Your task to perform on an android device: Go to Yahoo.com Image 0: 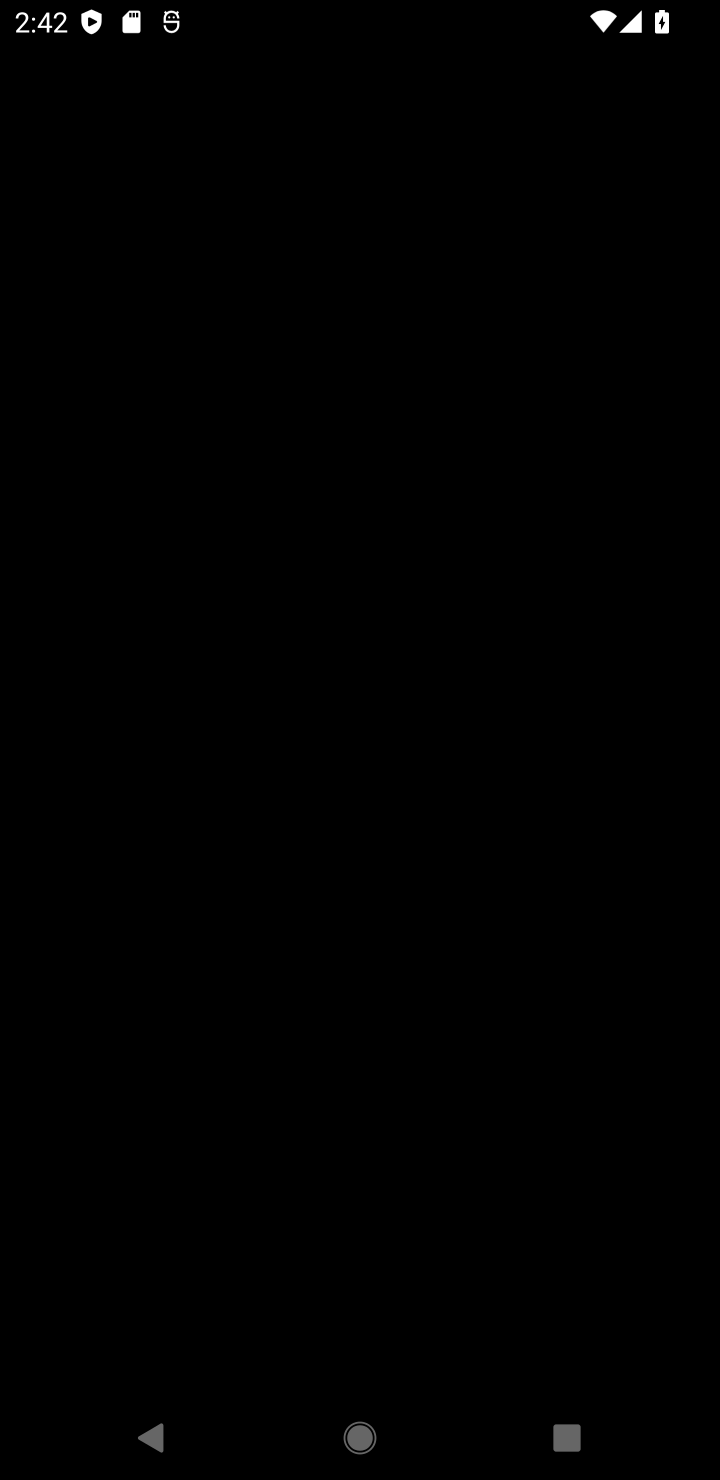
Step 0: click (620, 217)
Your task to perform on an android device: Go to Yahoo.com Image 1: 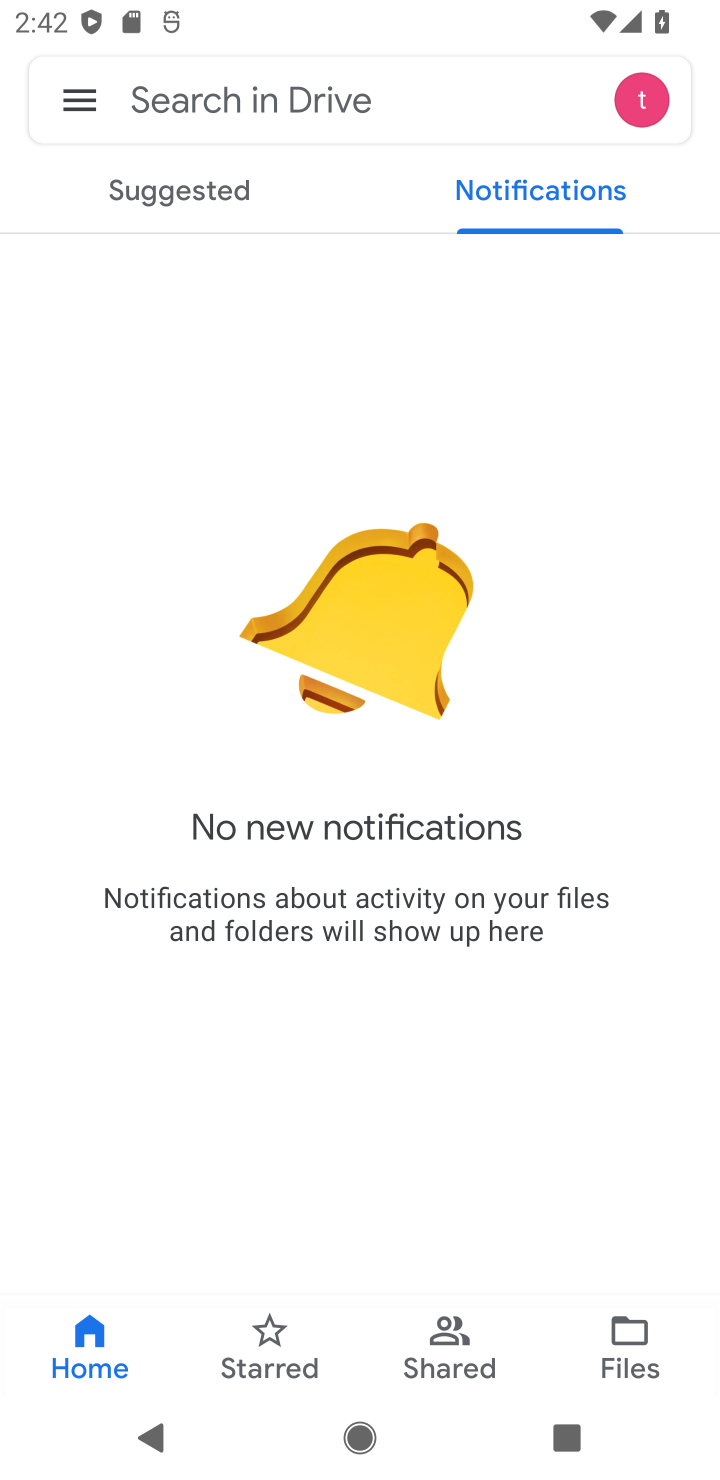
Step 1: press home button
Your task to perform on an android device: Go to Yahoo.com Image 2: 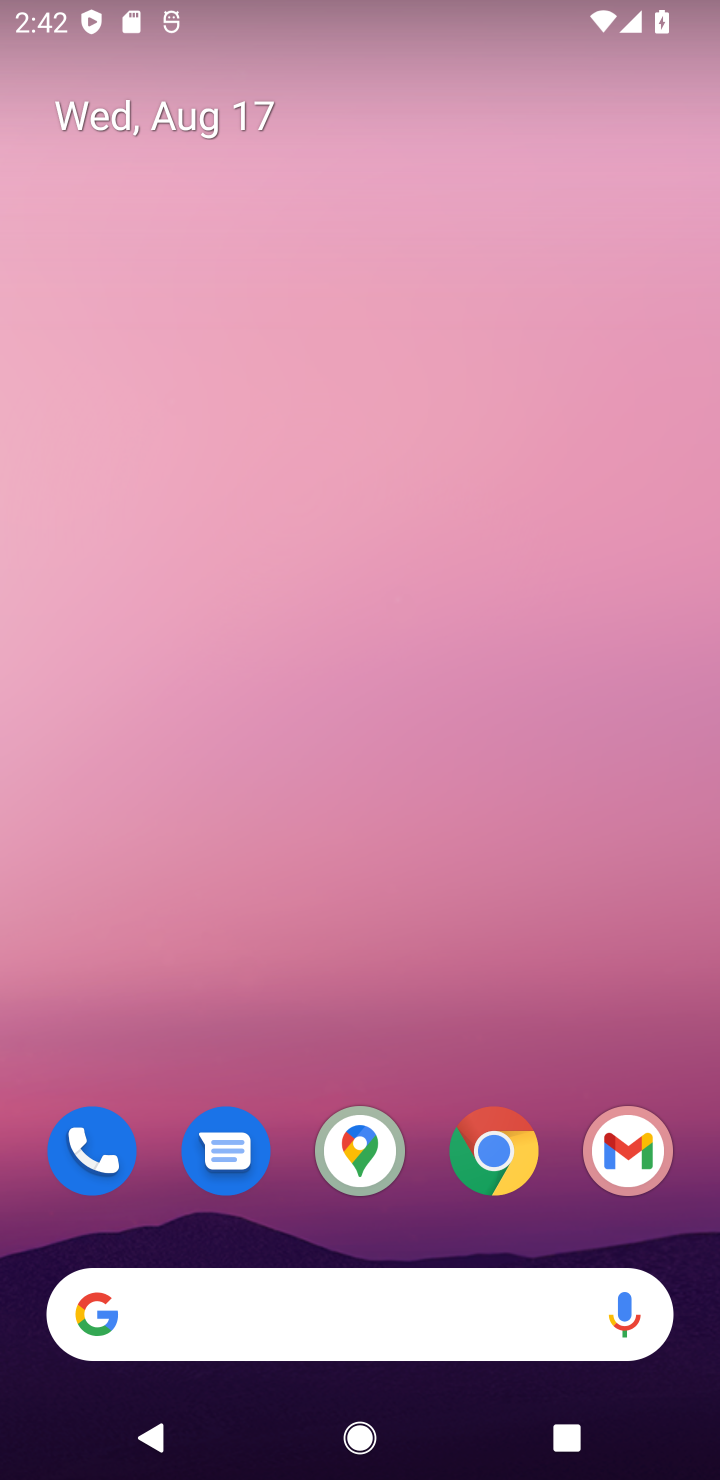
Step 2: drag from (241, 1301) to (359, 255)
Your task to perform on an android device: Go to Yahoo.com Image 3: 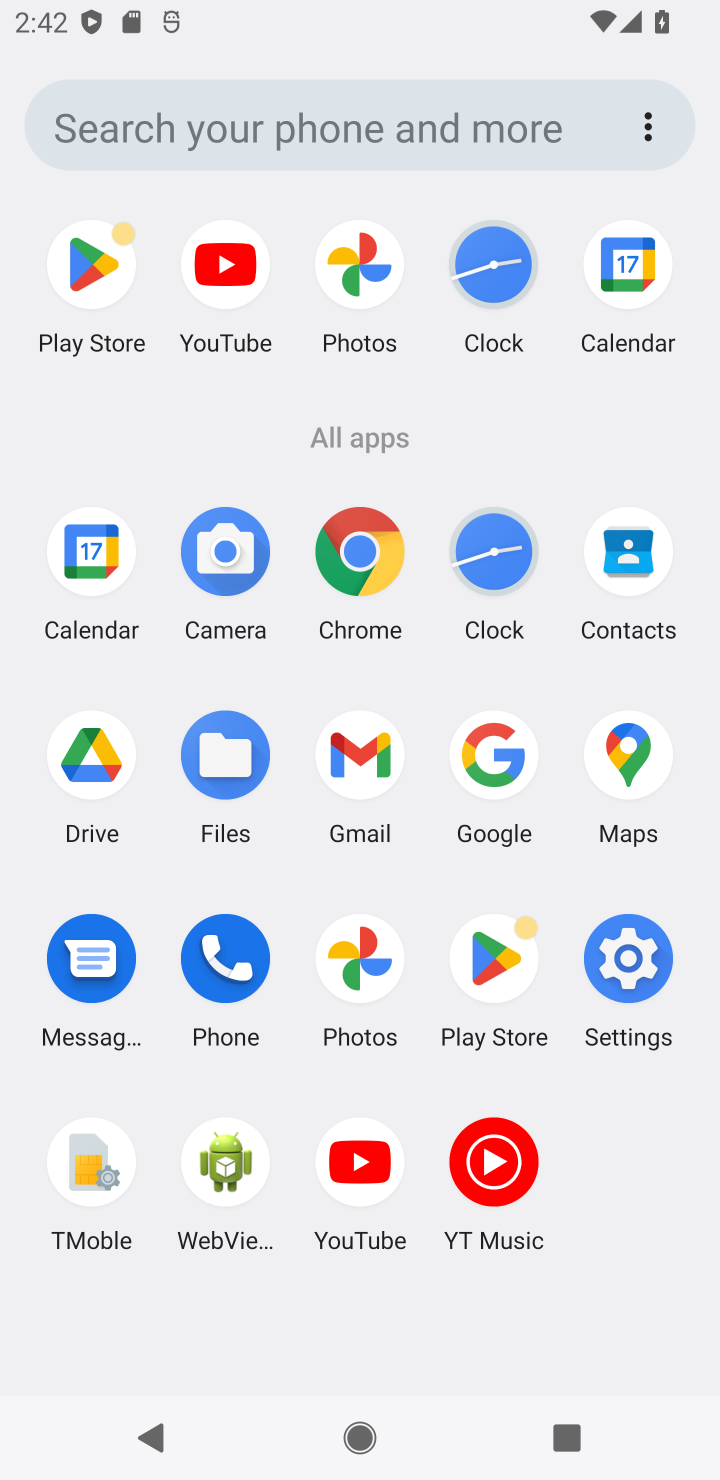
Step 3: click (344, 564)
Your task to perform on an android device: Go to Yahoo.com Image 4: 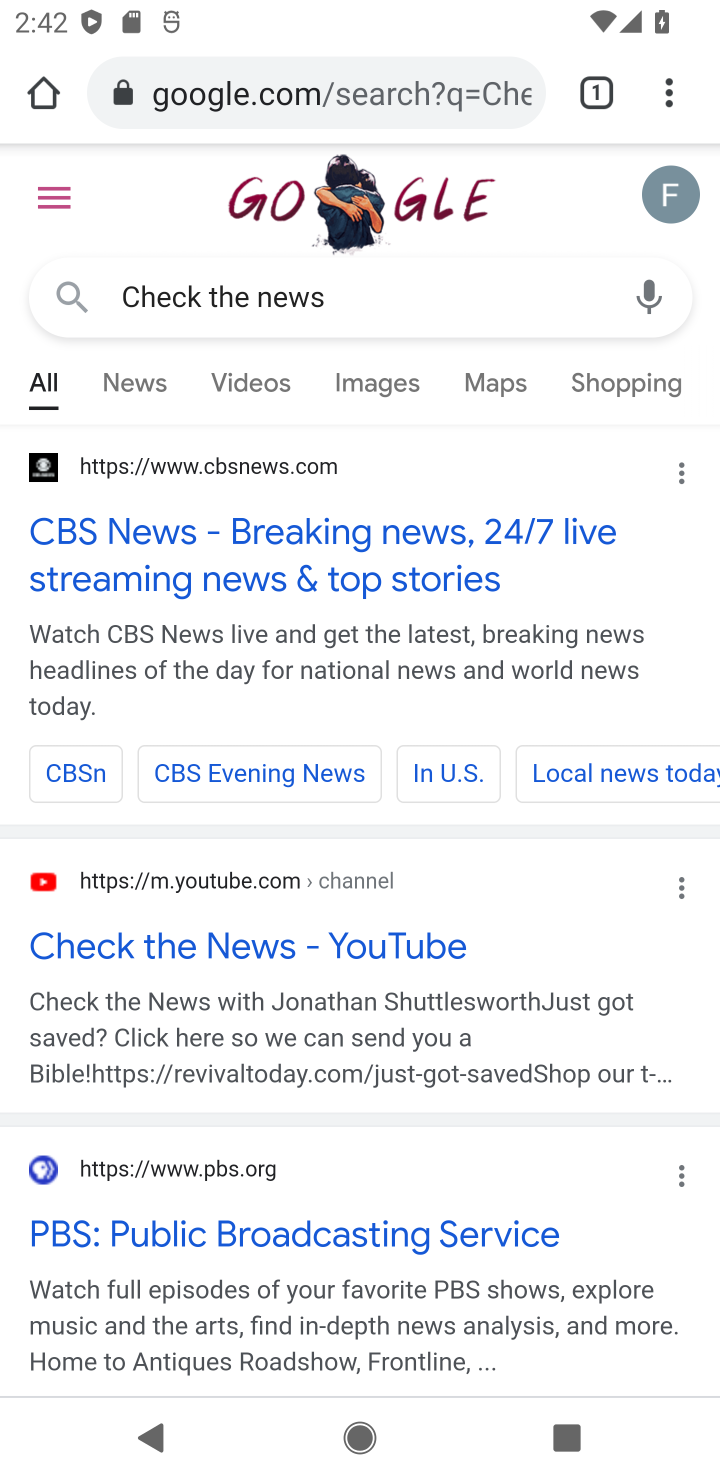
Step 4: click (680, 84)
Your task to perform on an android device: Go to Yahoo.com Image 5: 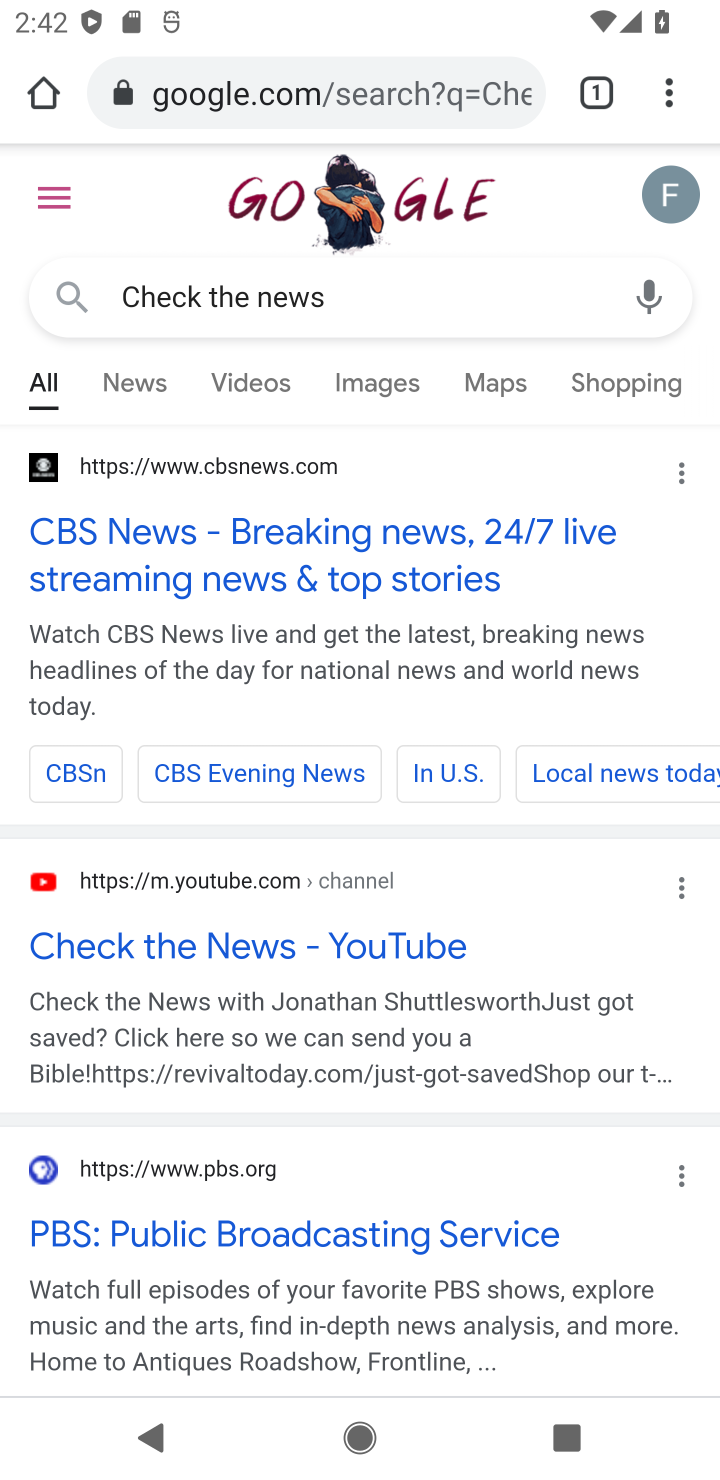
Step 5: click (660, 81)
Your task to perform on an android device: Go to Yahoo.com Image 6: 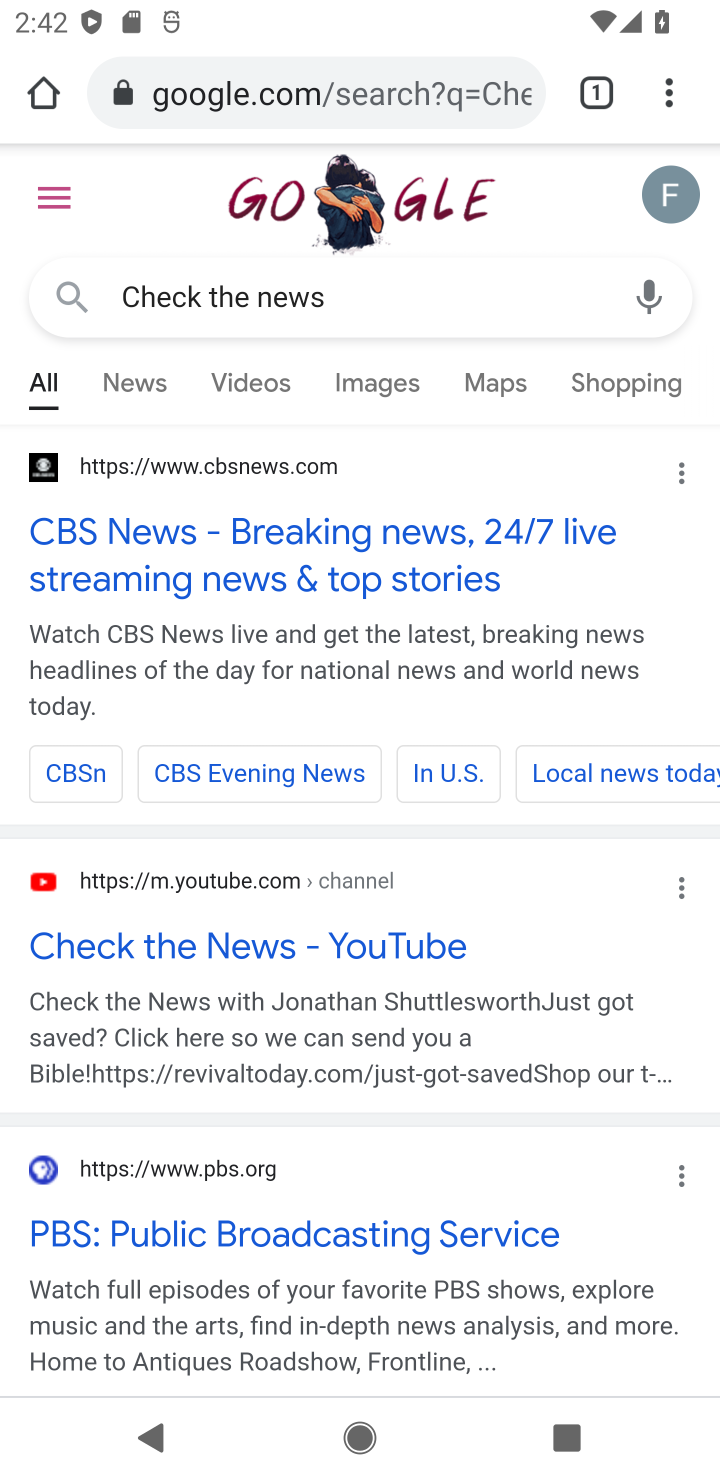
Step 6: click (660, 92)
Your task to perform on an android device: Go to Yahoo.com Image 7: 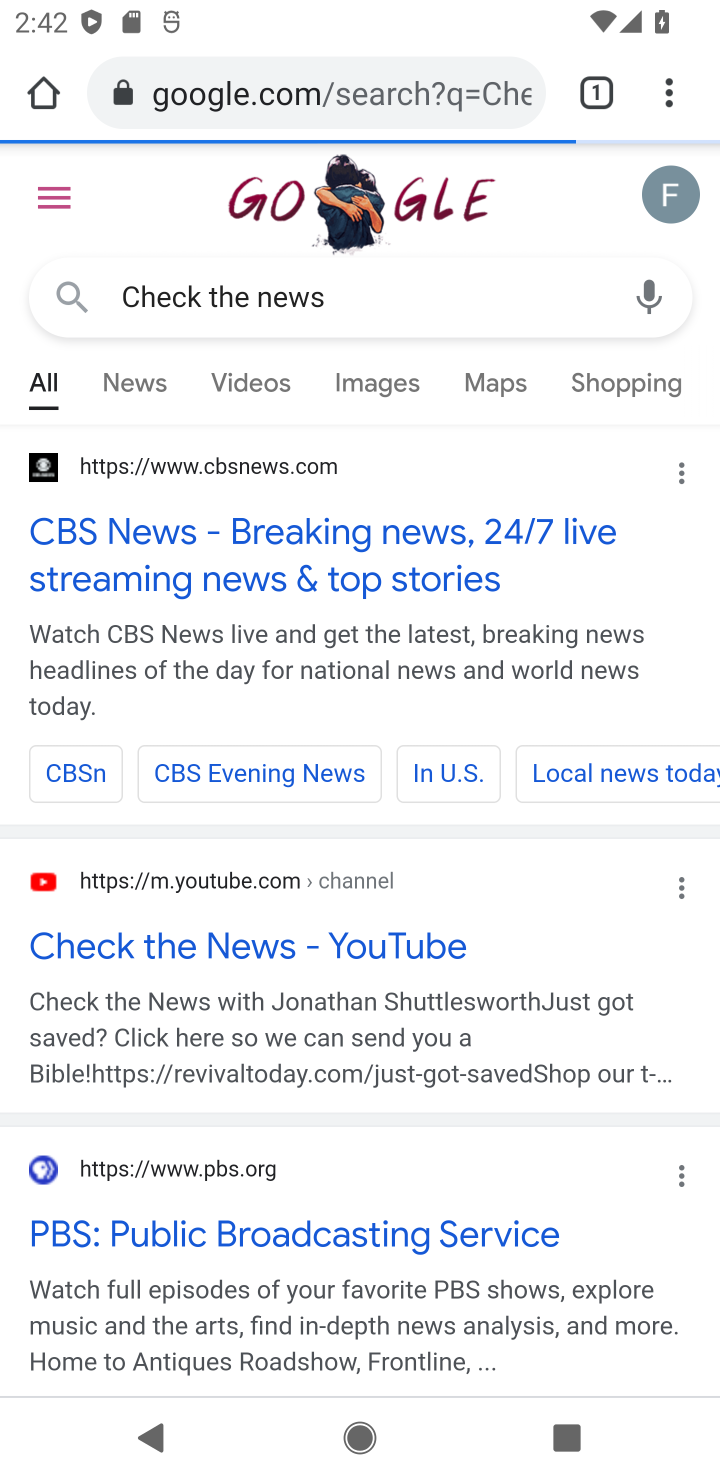
Step 7: click (663, 90)
Your task to perform on an android device: Go to Yahoo.com Image 8: 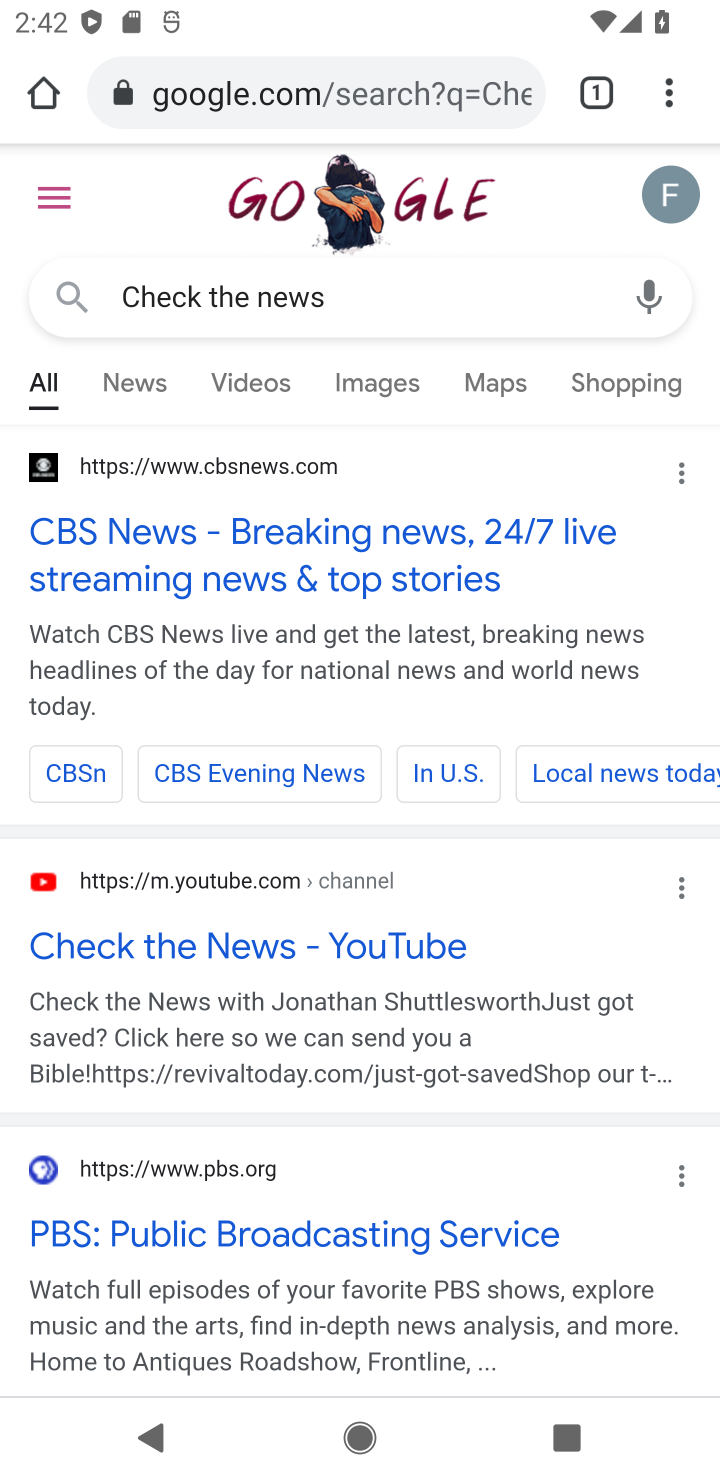
Step 8: click (638, 71)
Your task to perform on an android device: Go to Yahoo.com Image 9: 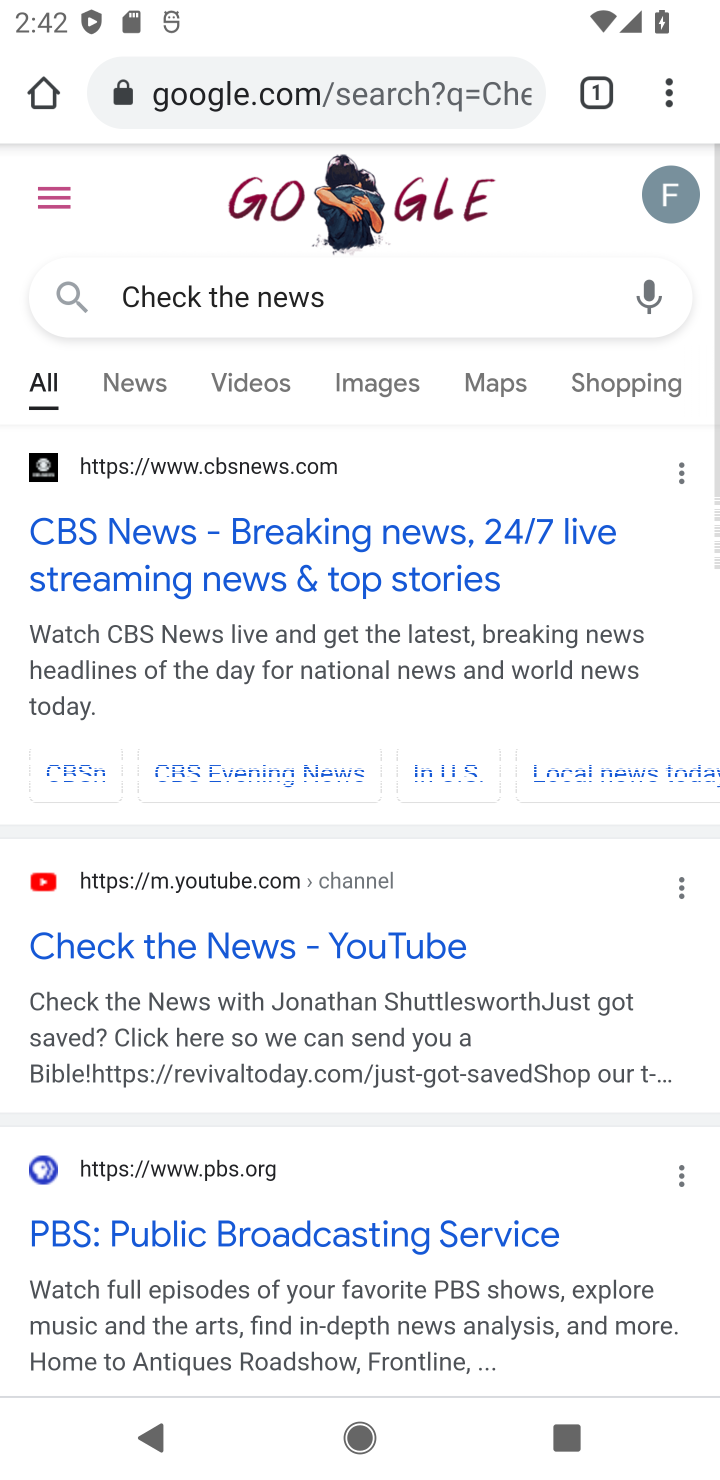
Step 9: click (592, 82)
Your task to perform on an android device: Go to Yahoo.com Image 10: 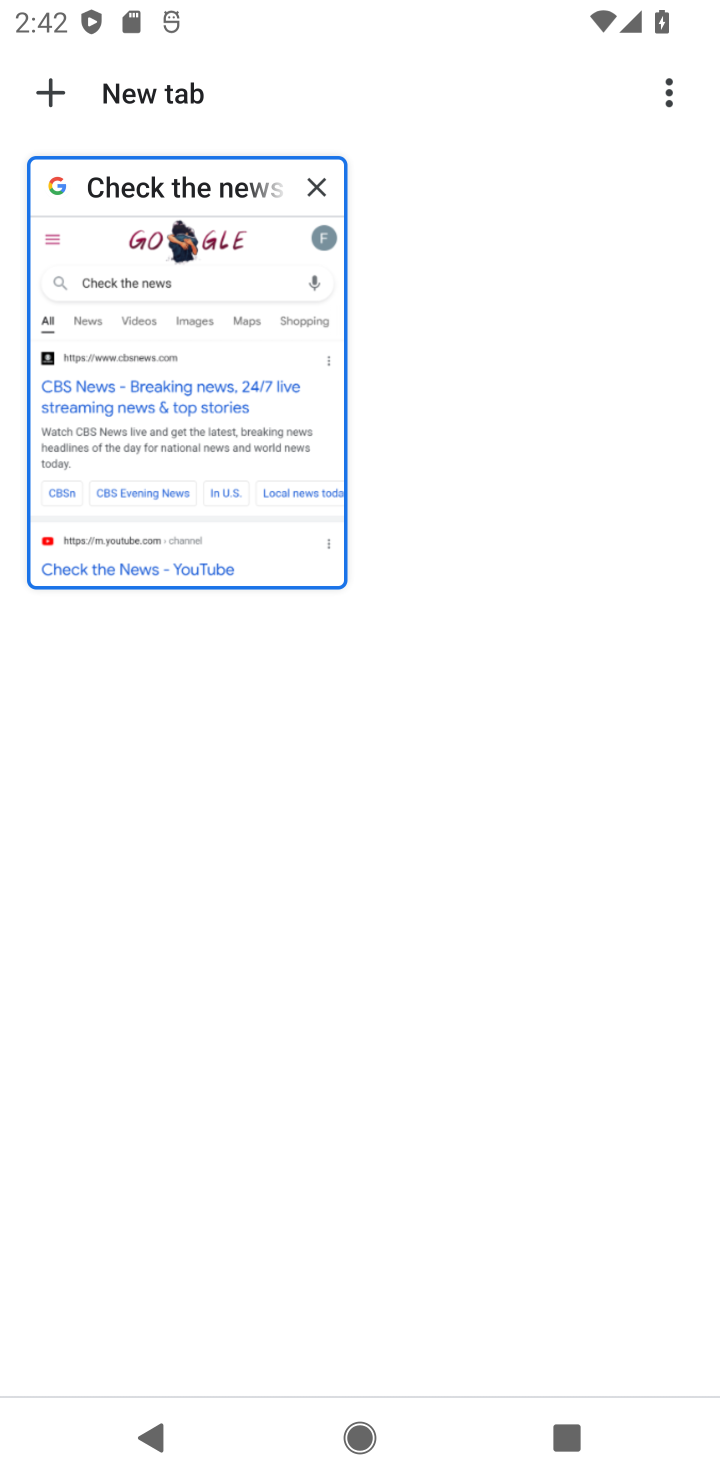
Step 10: click (67, 76)
Your task to perform on an android device: Go to Yahoo.com Image 11: 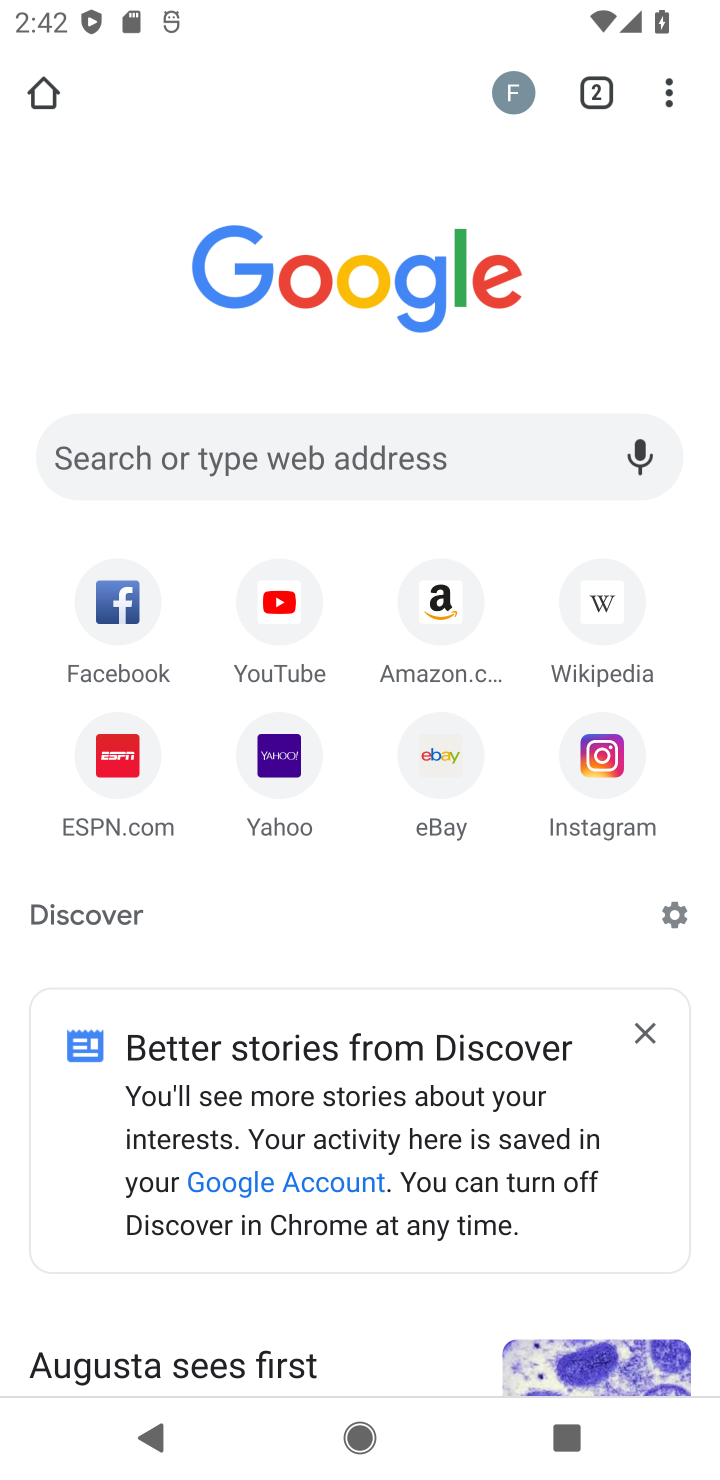
Step 11: click (252, 757)
Your task to perform on an android device: Go to Yahoo.com Image 12: 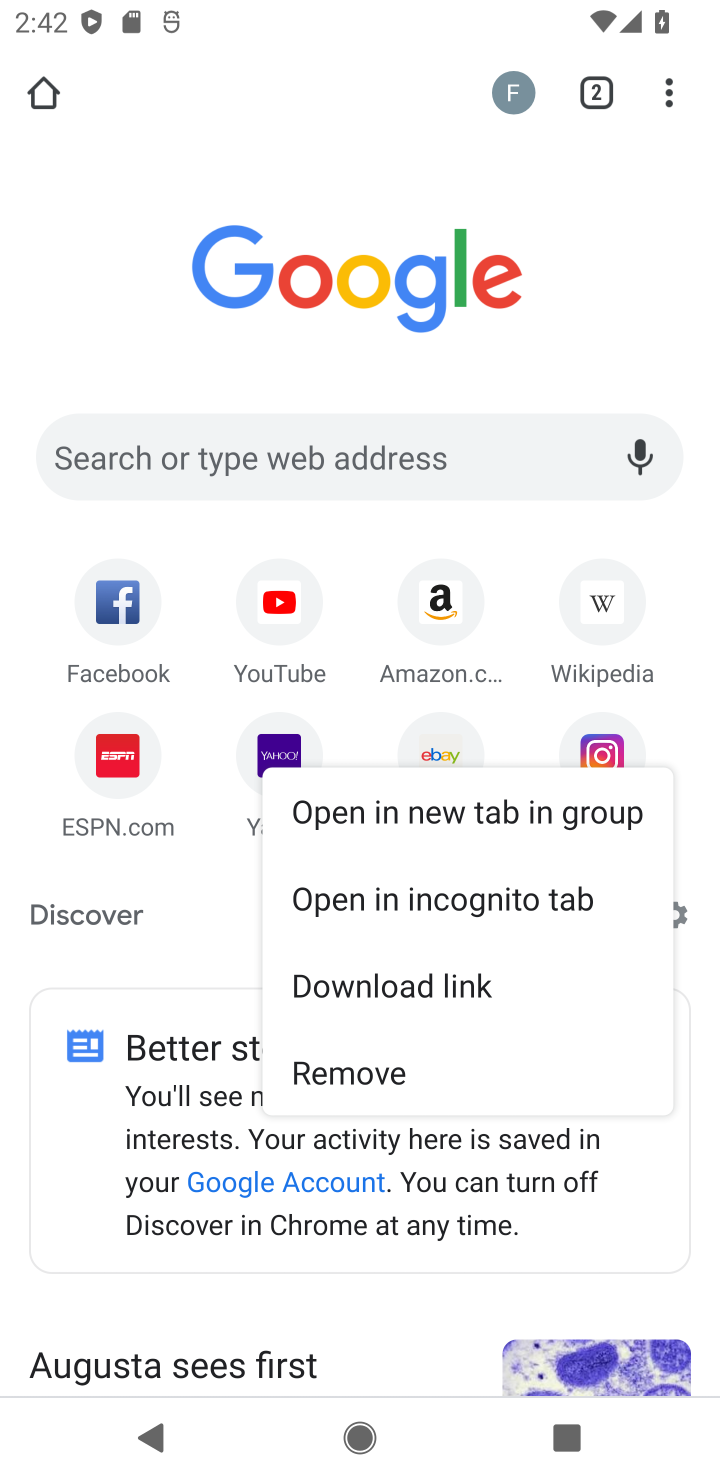
Step 12: click (285, 744)
Your task to perform on an android device: Go to Yahoo.com Image 13: 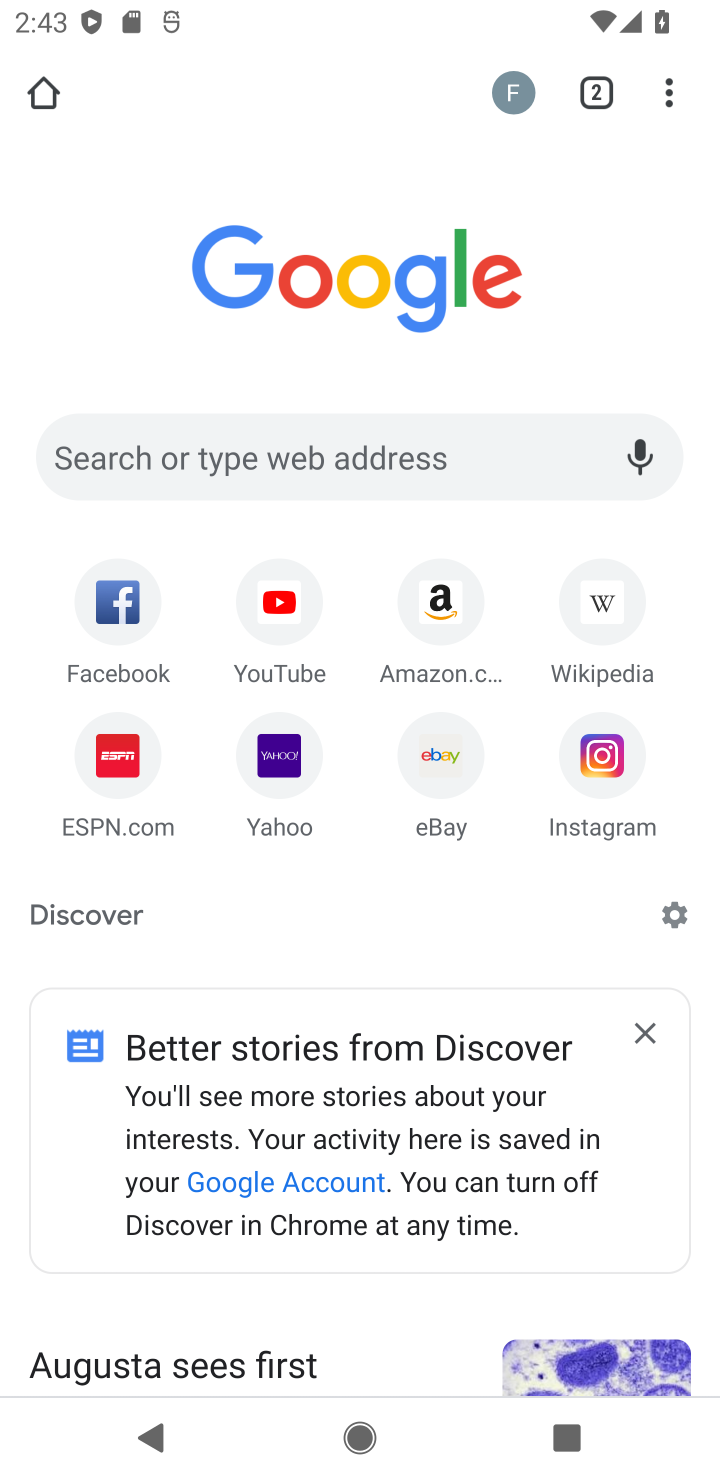
Step 13: click (285, 744)
Your task to perform on an android device: Go to Yahoo.com Image 14: 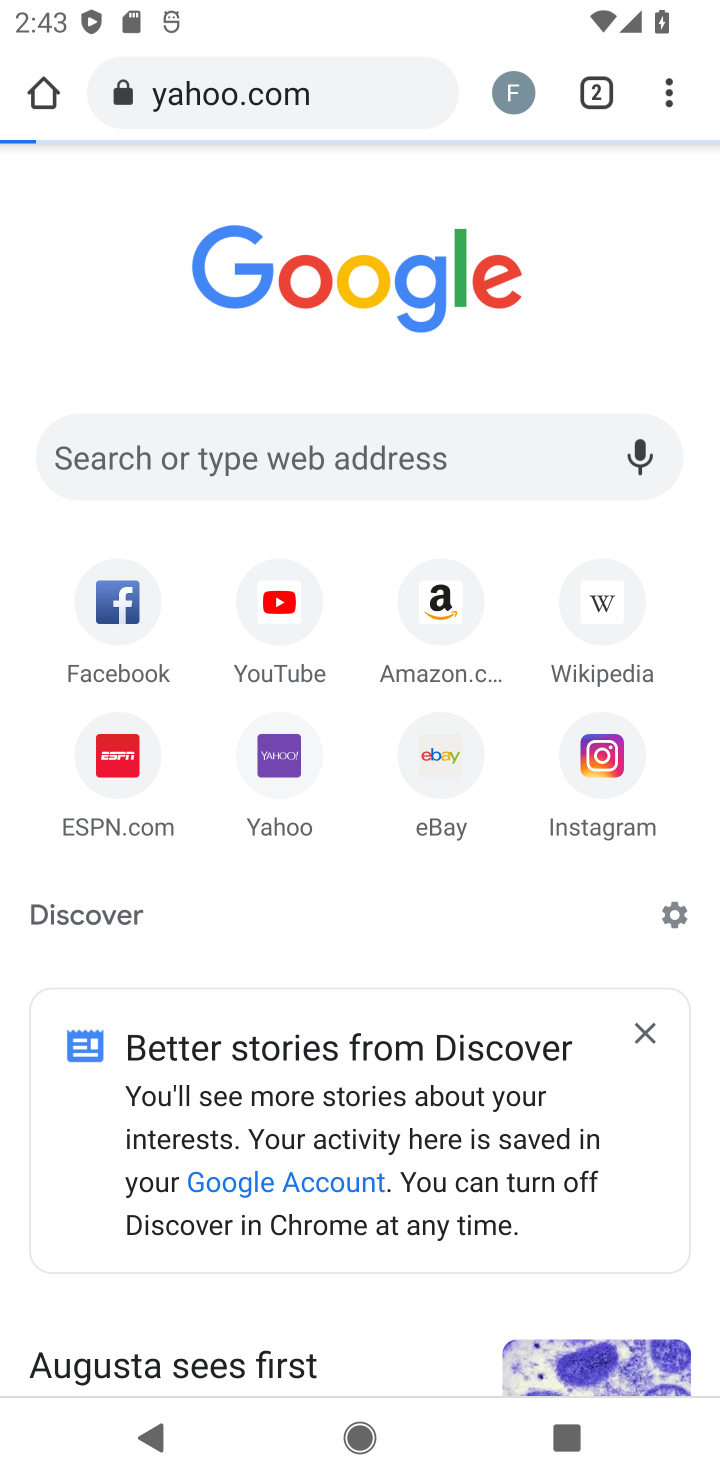
Step 14: click (272, 775)
Your task to perform on an android device: Go to Yahoo.com Image 15: 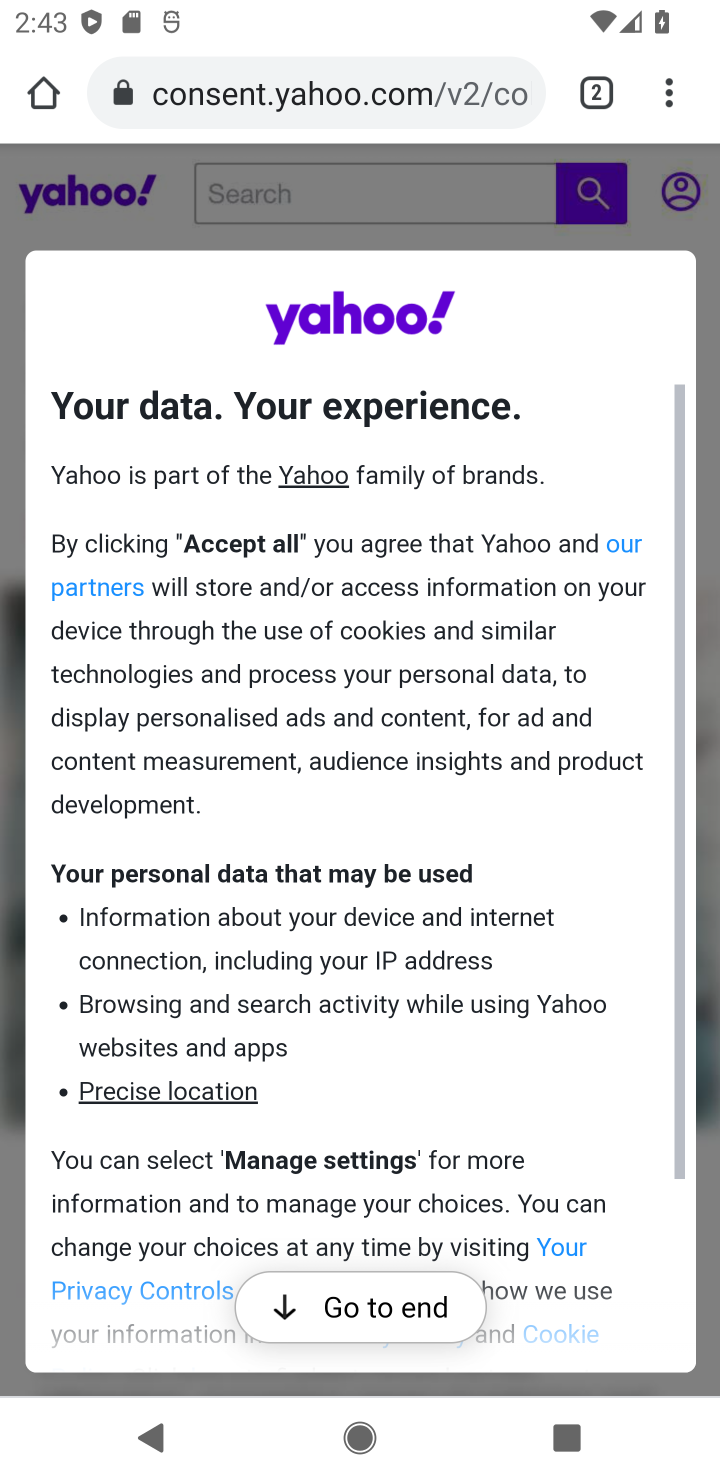
Step 15: task complete